Your task to perform on an android device: Show the shopping cart on amazon. Add razer naga to the cart on amazon Image 0: 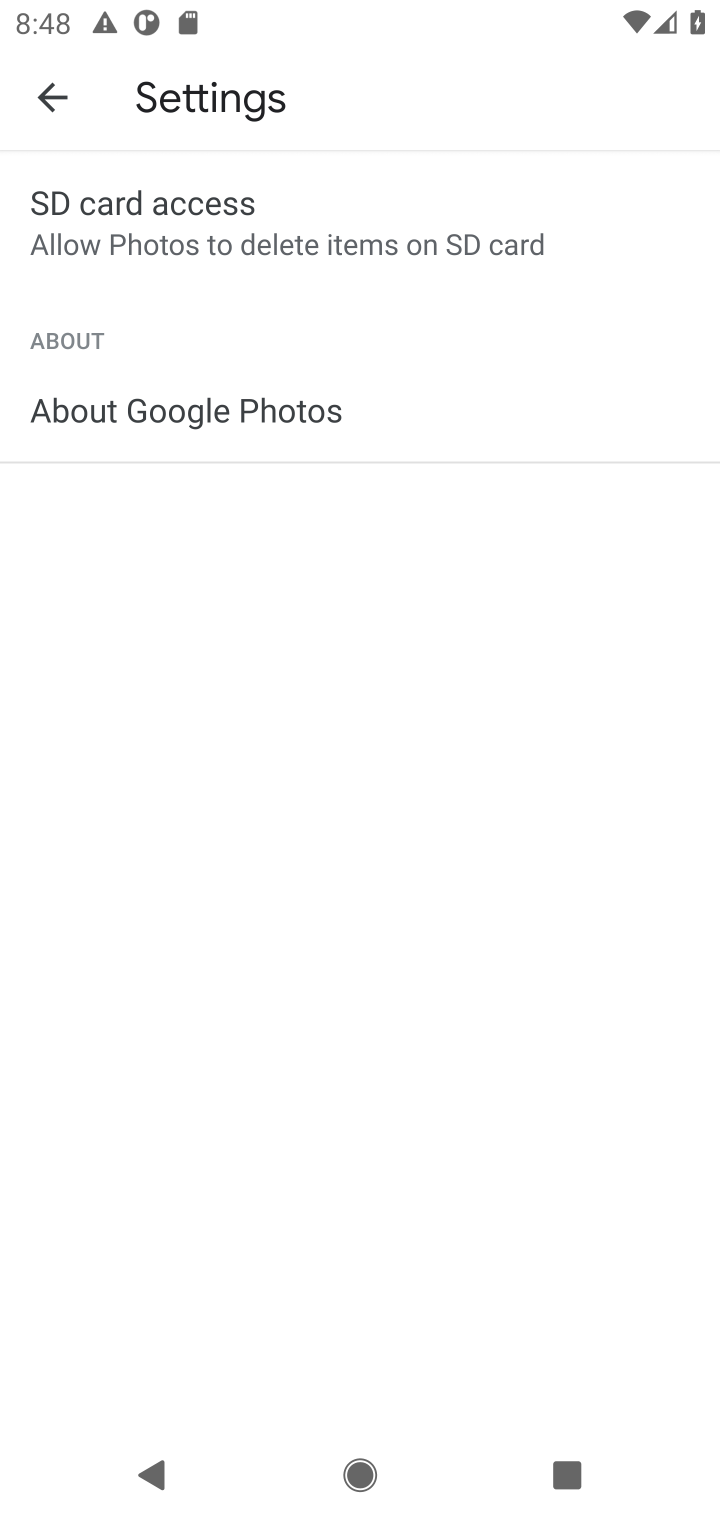
Step 0: press home button
Your task to perform on an android device: Show the shopping cart on amazon. Add razer naga to the cart on amazon Image 1: 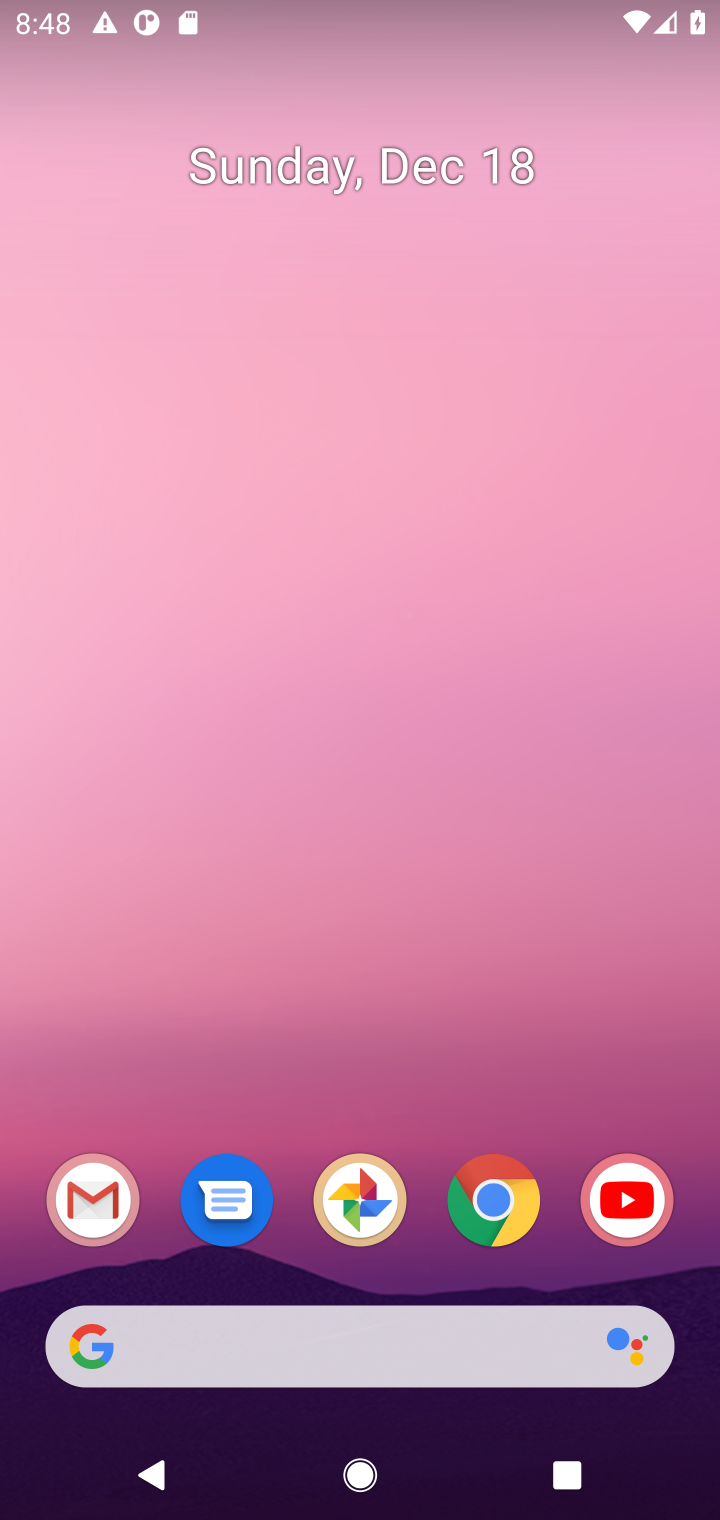
Step 1: click (504, 1194)
Your task to perform on an android device: Show the shopping cart on amazon. Add razer naga to the cart on amazon Image 2: 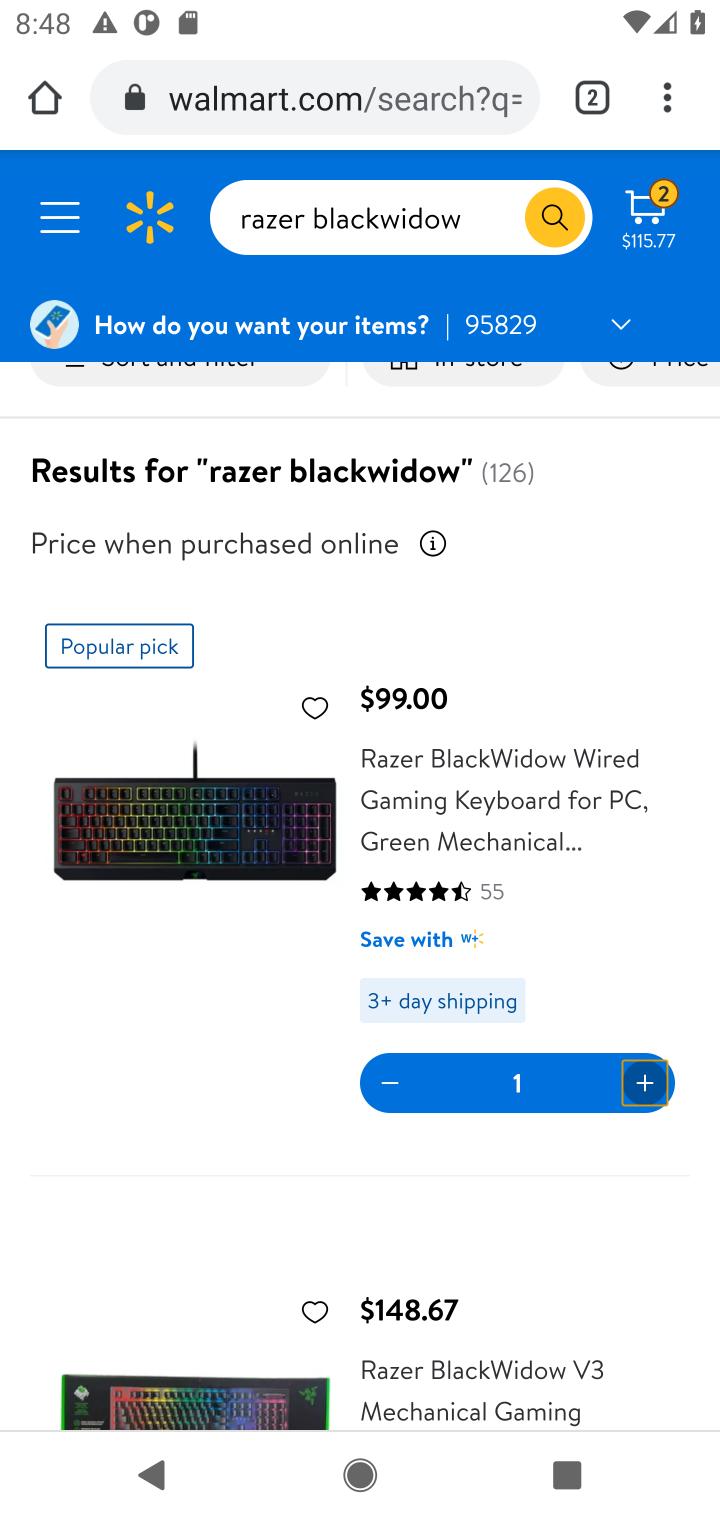
Step 2: click (266, 103)
Your task to perform on an android device: Show the shopping cart on amazon. Add razer naga to the cart on amazon Image 3: 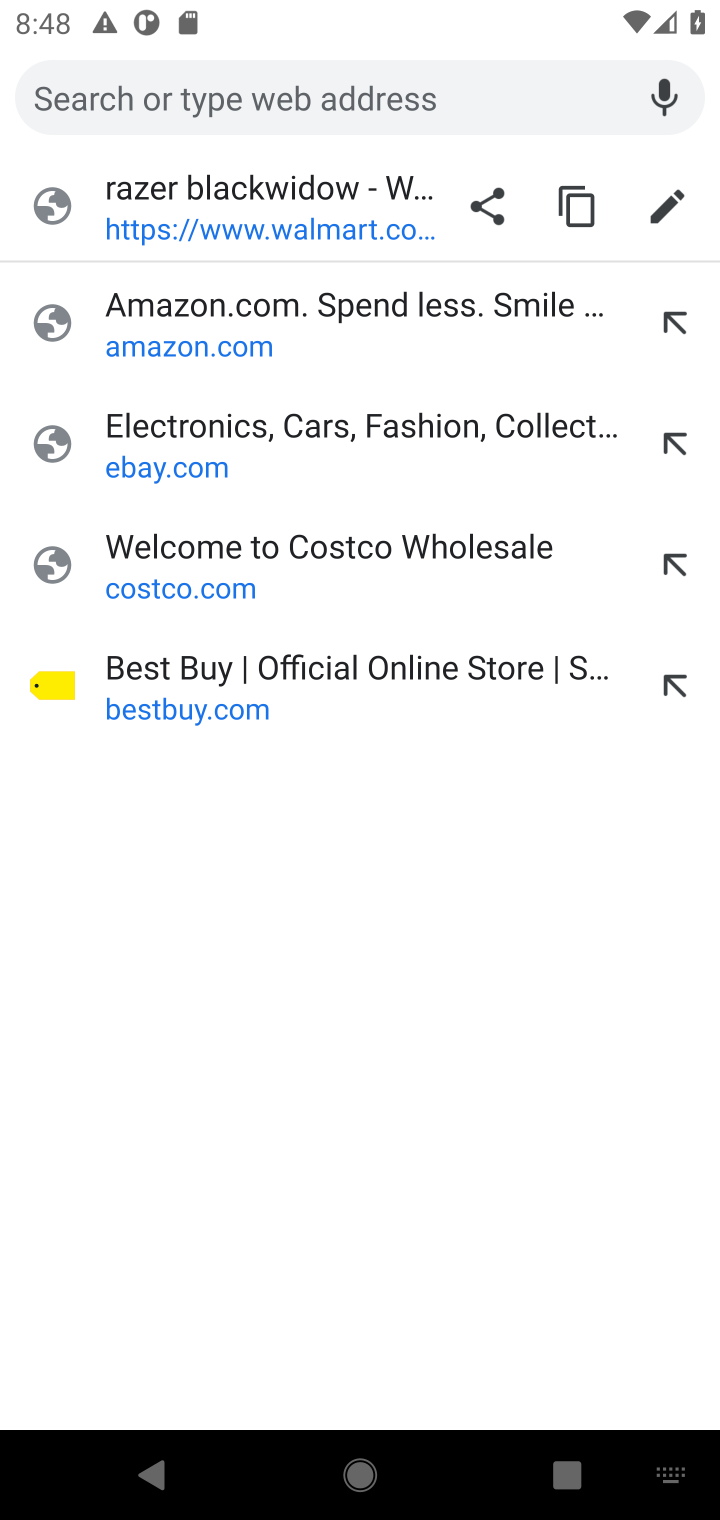
Step 3: click (130, 348)
Your task to perform on an android device: Show the shopping cart on amazon. Add razer naga to the cart on amazon Image 4: 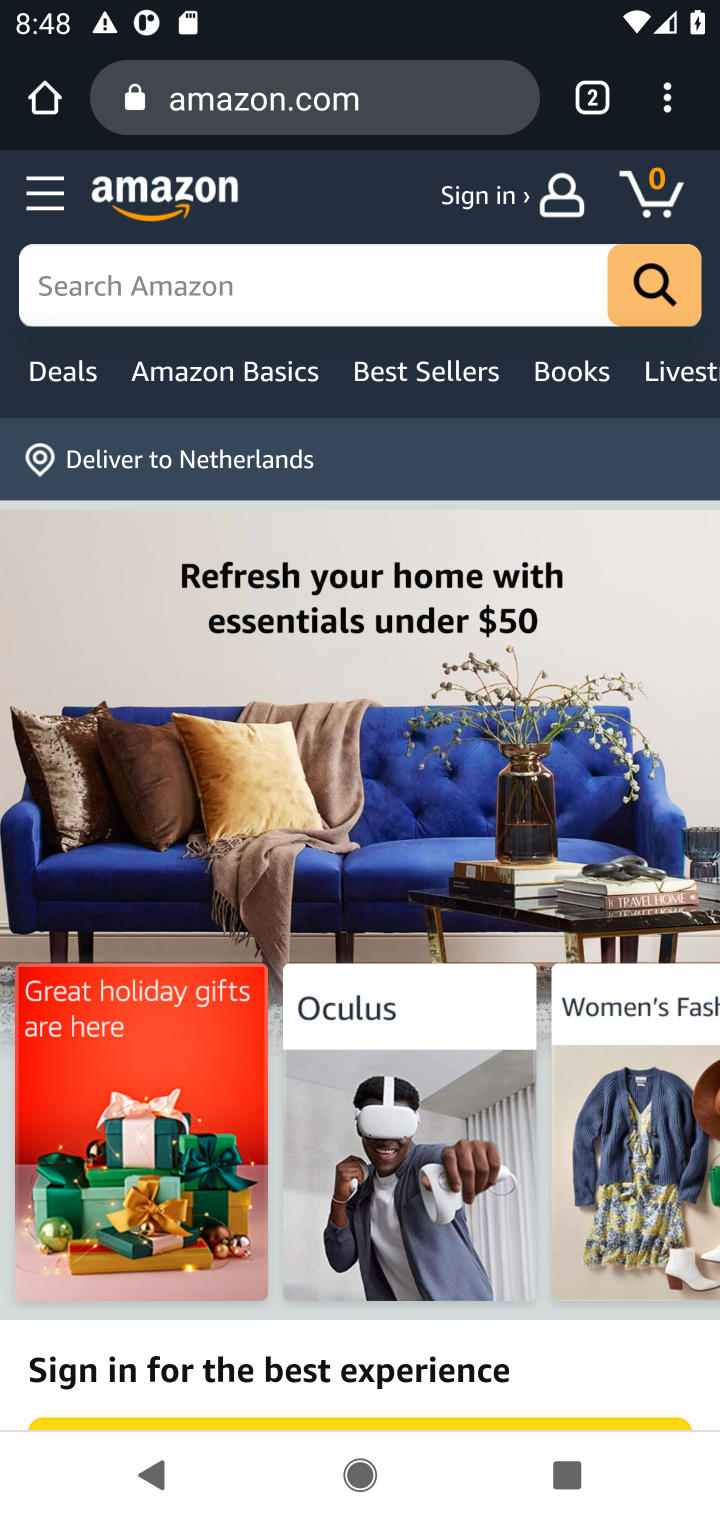
Step 4: click (648, 183)
Your task to perform on an android device: Show the shopping cart on amazon. Add razer naga to the cart on amazon Image 5: 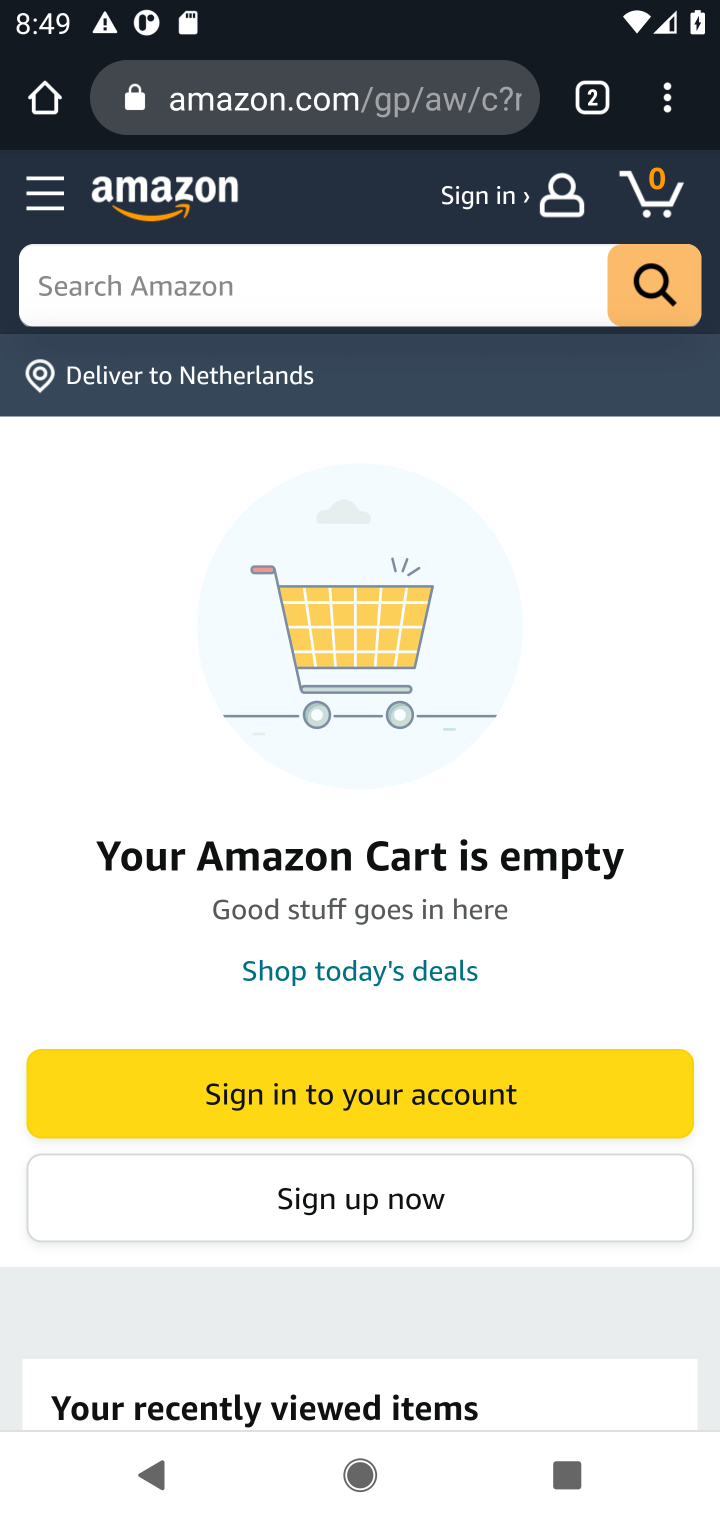
Step 5: click (113, 282)
Your task to perform on an android device: Show the shopping cart on amazon. Add razer naga to the cart on amazon Image 6: 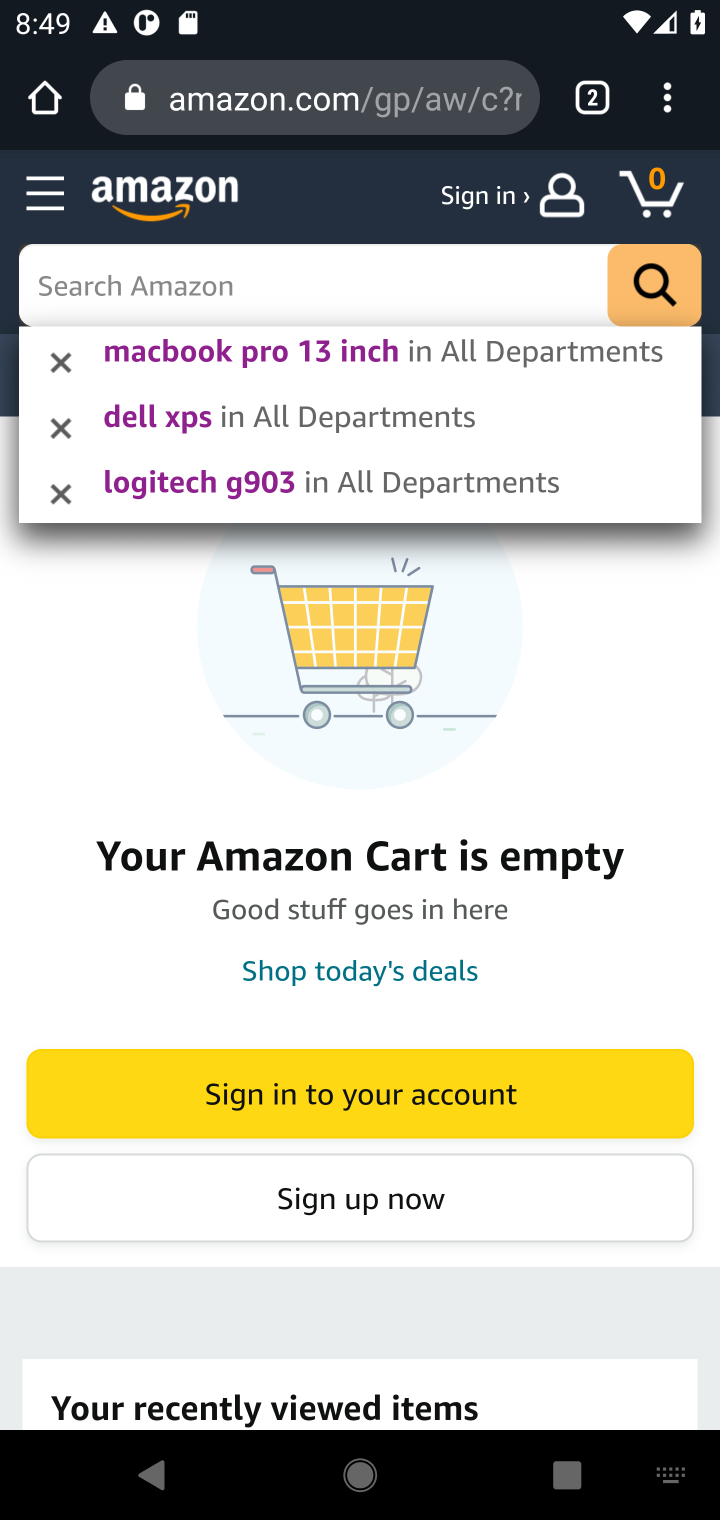
Step 6: type "razer naga"
Your task to perform on an android device: Show the shopping cart on amazon. Add razer naga to the cart on amazon Image 7: 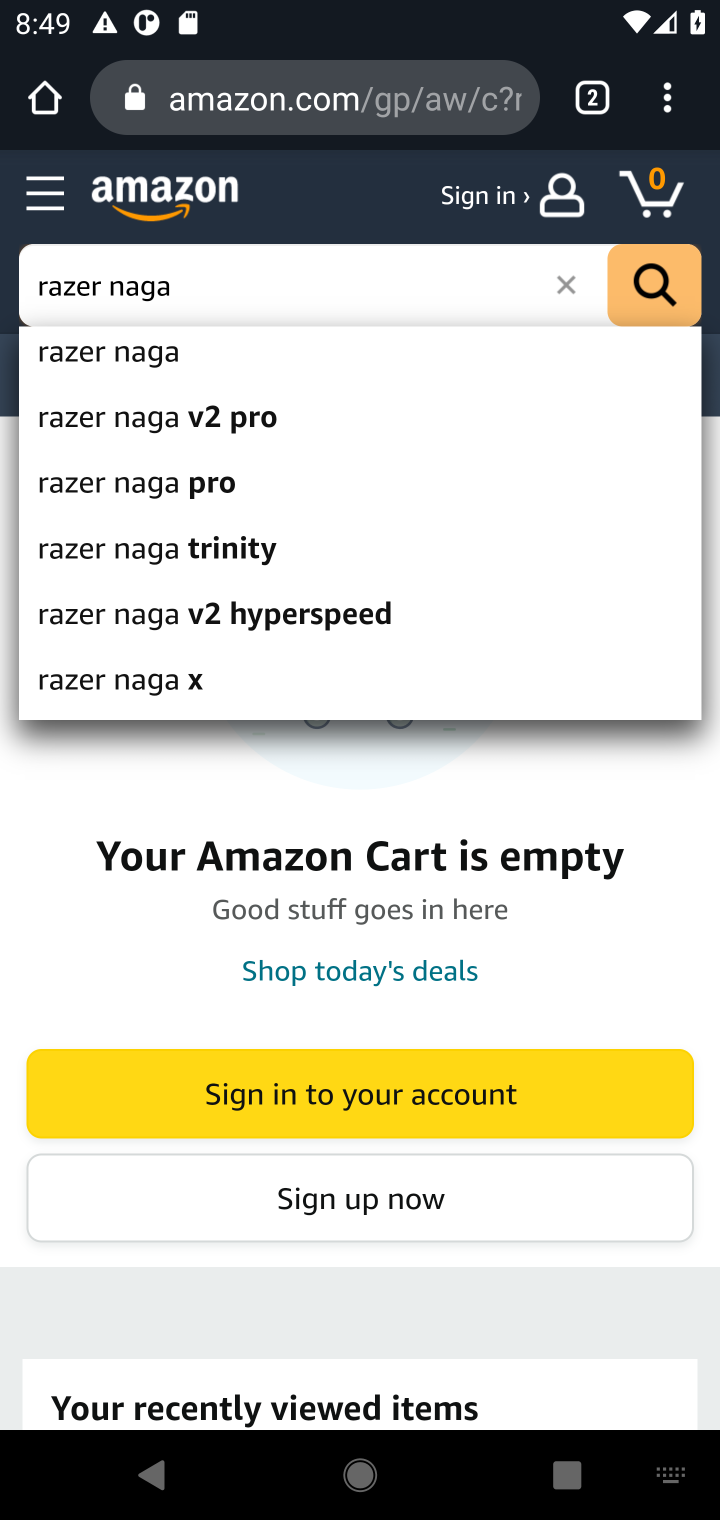
Step 7: click (109, 360)
Your task to perform on an android device: Show the shopping cart on amazon. Add razer naga to the cart on amazon Image 8: 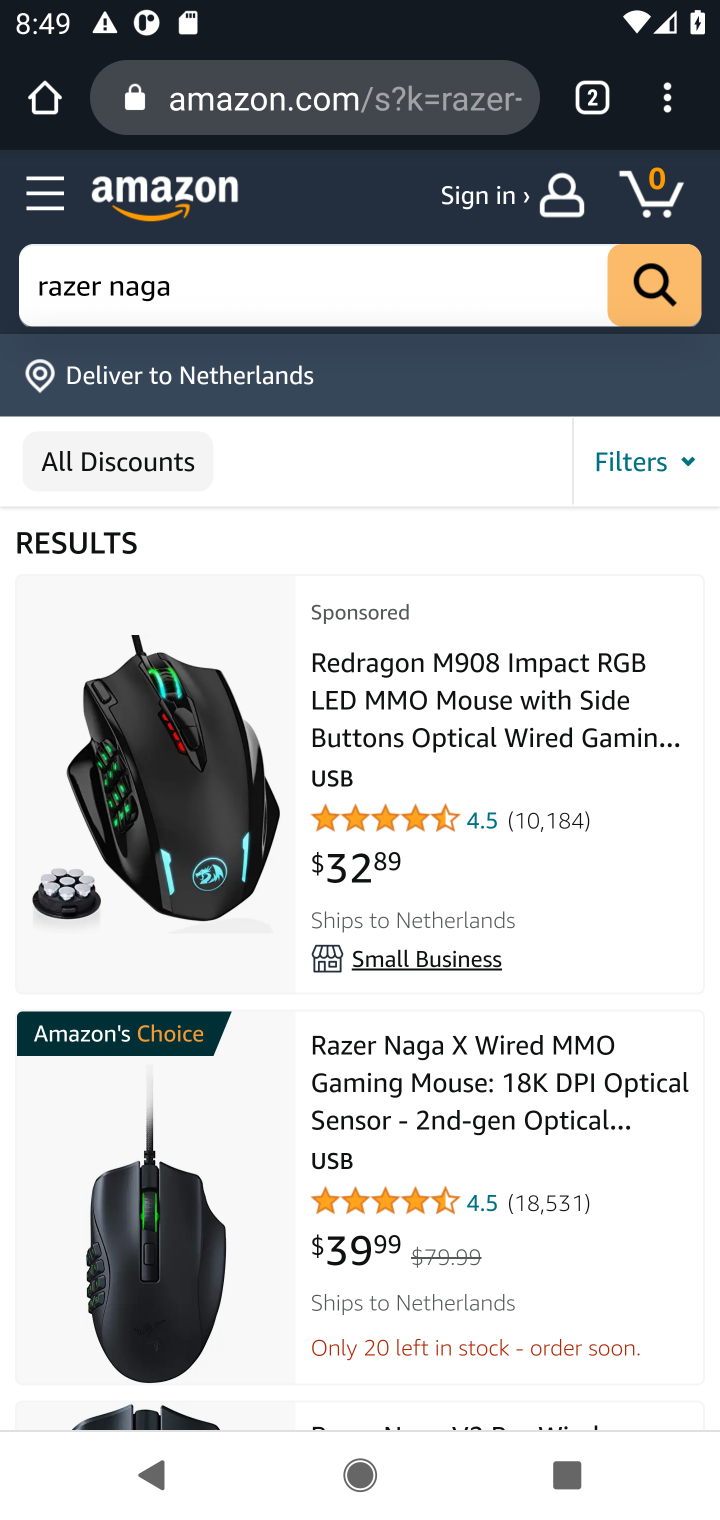
Step 8: click (476, 1105)
Your task to perform on an android device: Show the shopping cart on amazon. Add razer naga to the cart on amazon Image 9: 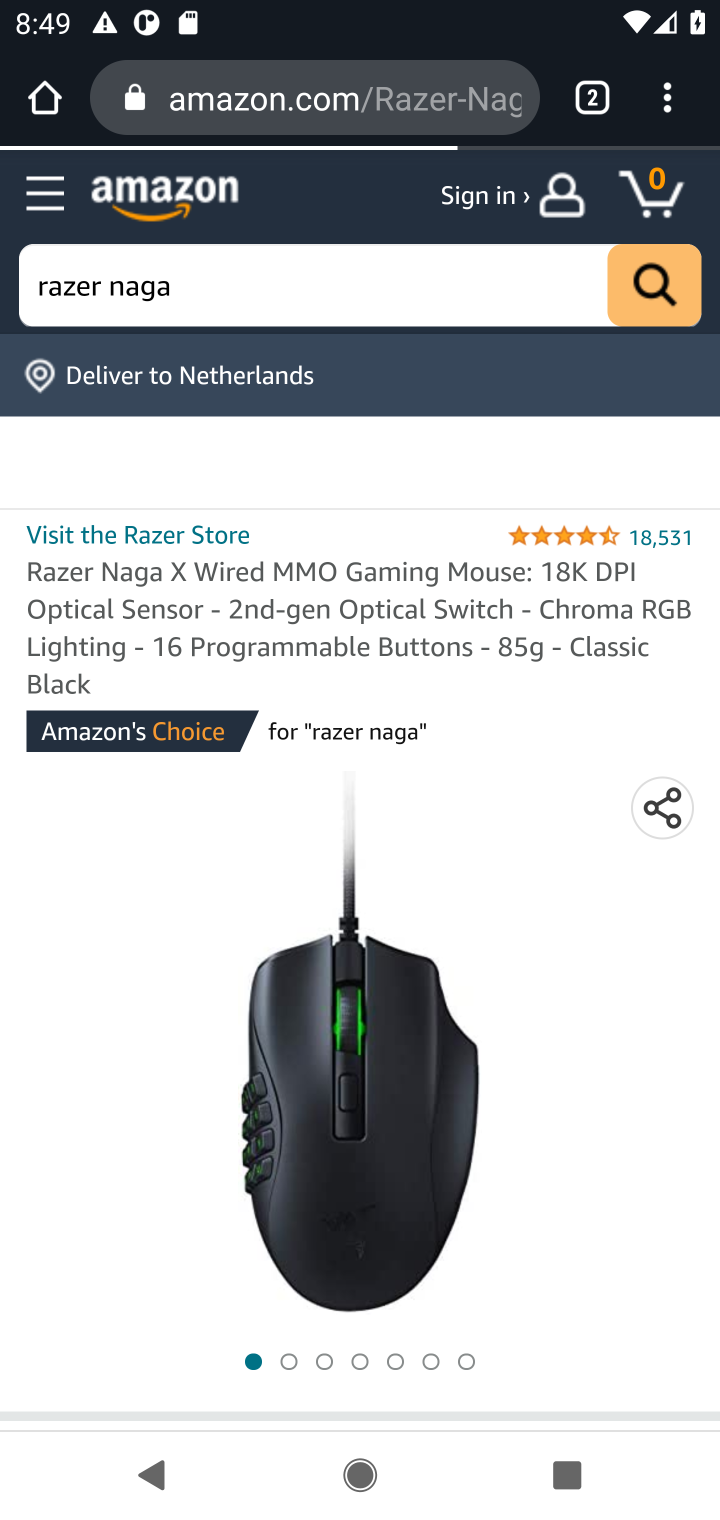
Step 9: drag from (307, 1108) to (250, 276)
Your task to perform on an android device: Show the shopping cart on amazon. Add razer naga to the cart on amazon Image 10: 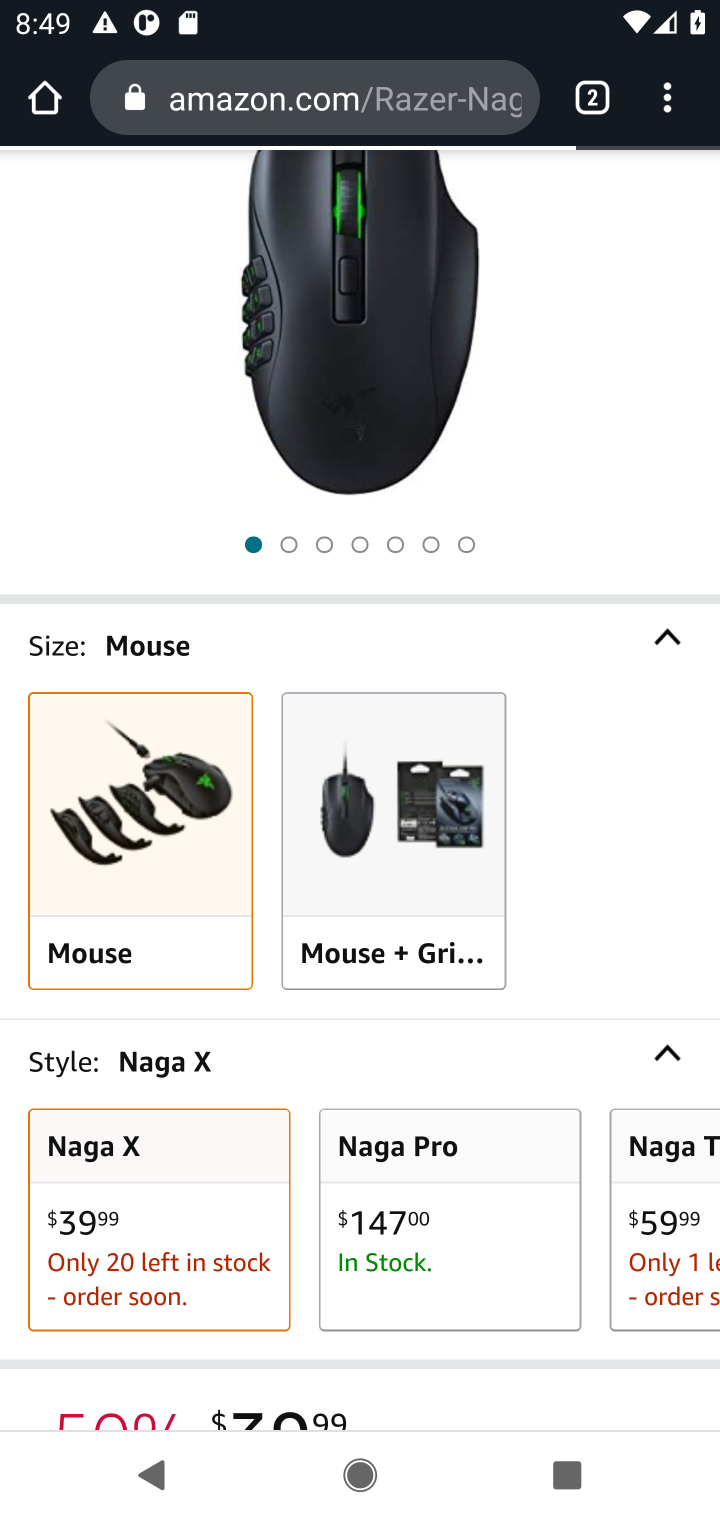
Step 10: drag from (252, 934) to (265, 330)
Your task to perform on an android device: Show the shopping cart on amazon. Add razer naga to the cart on amazon Image 11: 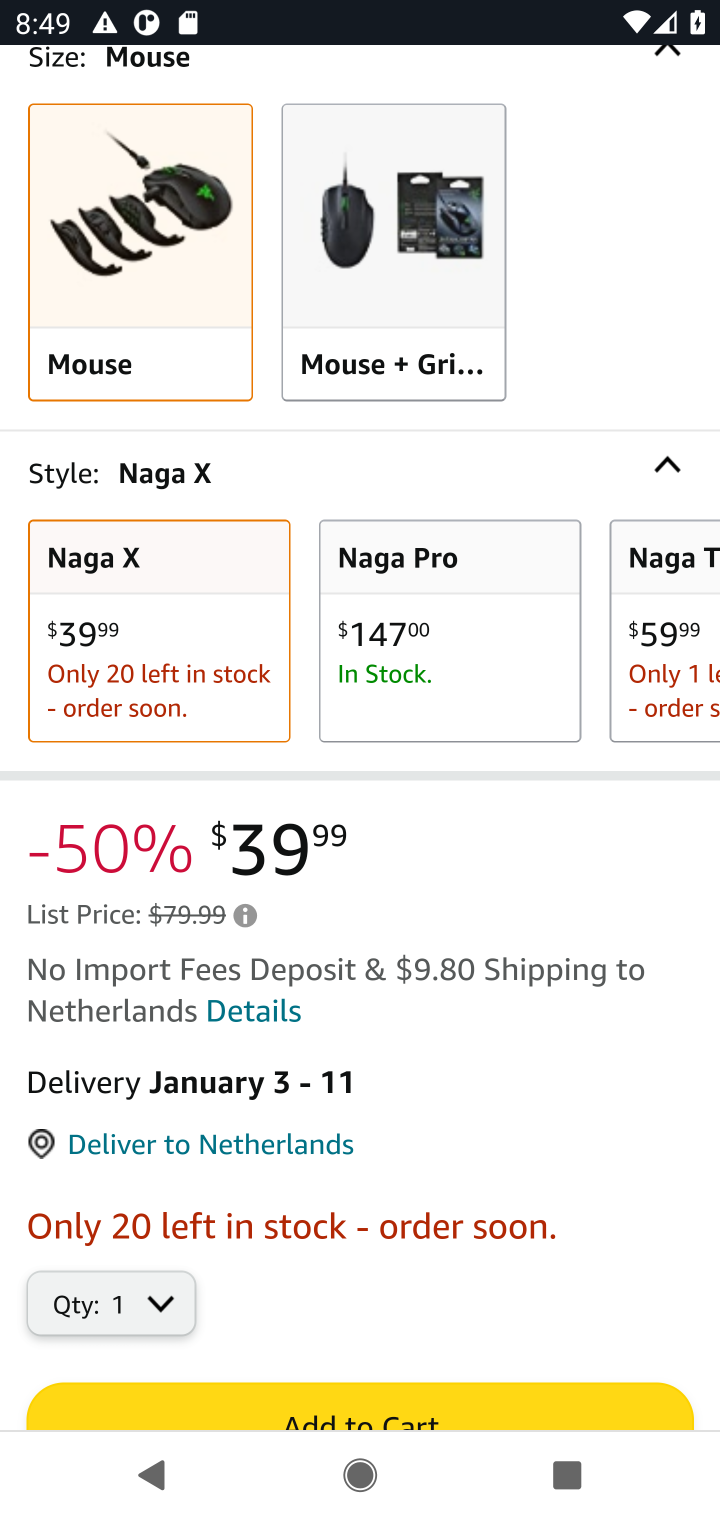
Step 11: drag from (264, 1115) to (251, 550)
Your task to perform on an android device: Show the shopping cart on amazon. Add razer naga to the cart on amazon Image 12: 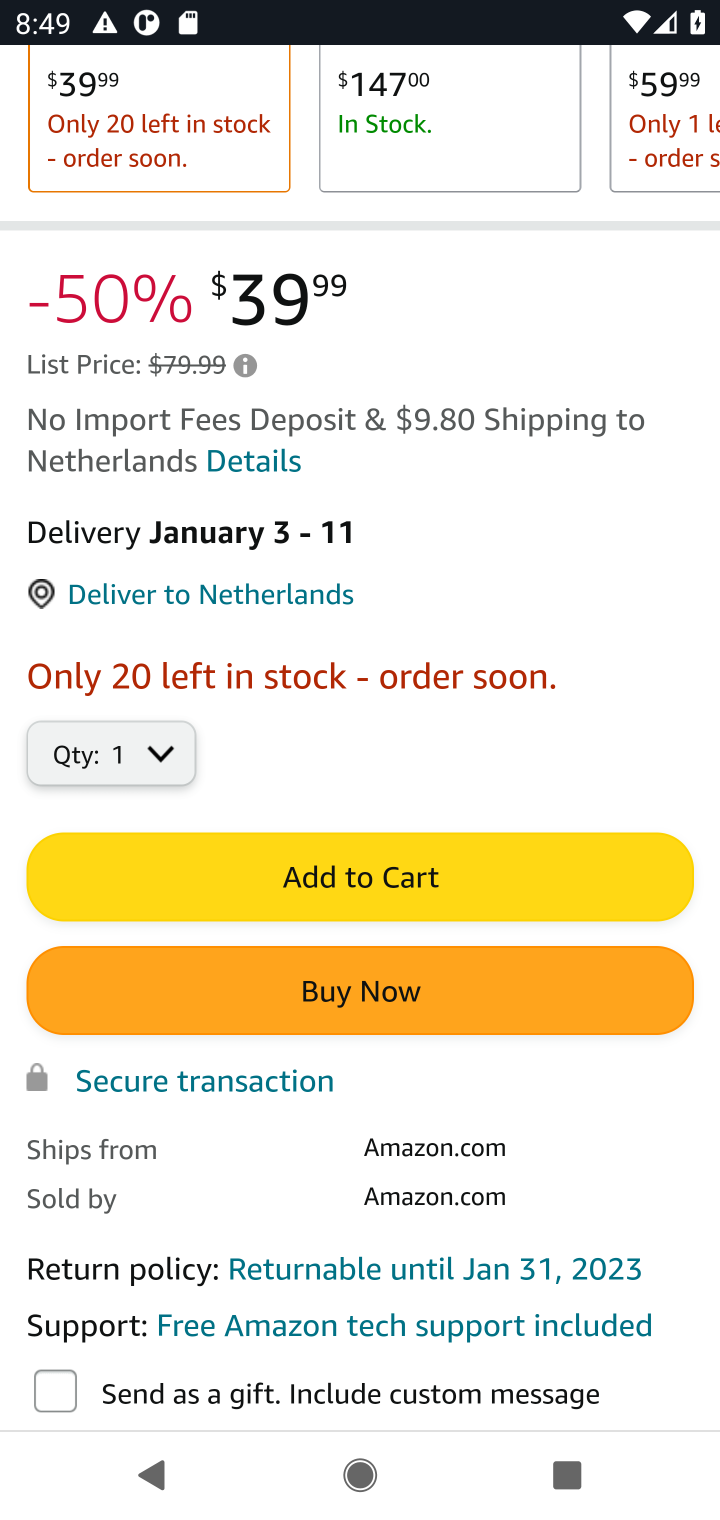
Step 12: click (283, 859)
Your task to perform on an android device: Show the shopping cart on amazon. Add razer naga to the cart on amazon Image 13: 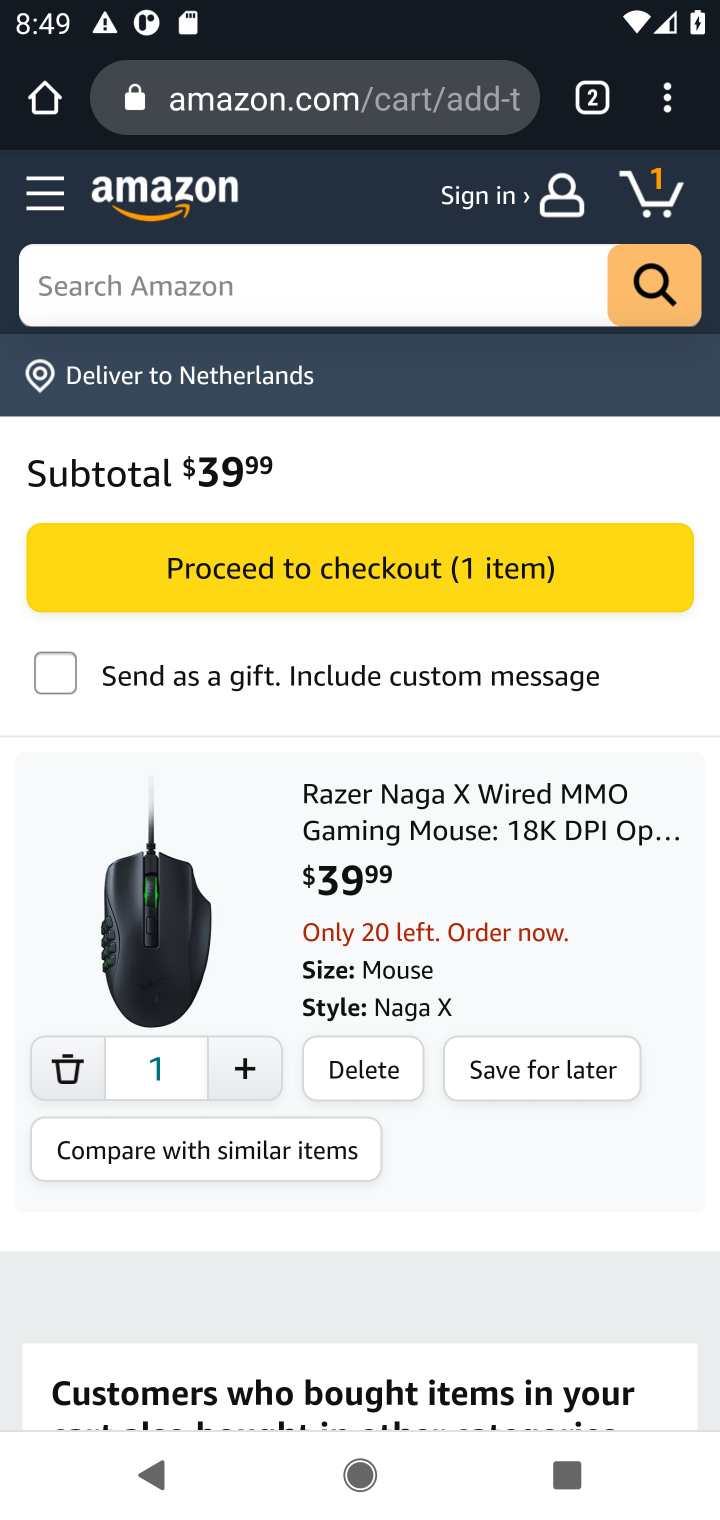
Step 13: task complete